Your task to perform on an android device: turn on improve location accuracy Image 0: 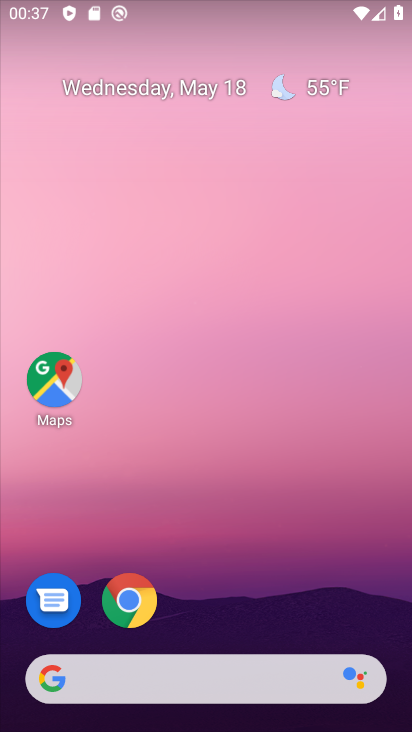
Step 0: drag from (143, 654) to (134, 232)
Your task to perform on an android device: turn on improve location accuracy Image 1: 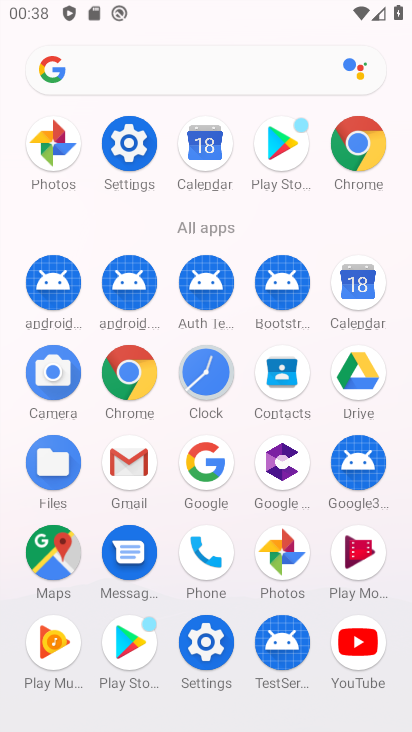
Step 1: click (197, 631)
Your task to perform on an android device: turn on improve location accuracy Image 2: 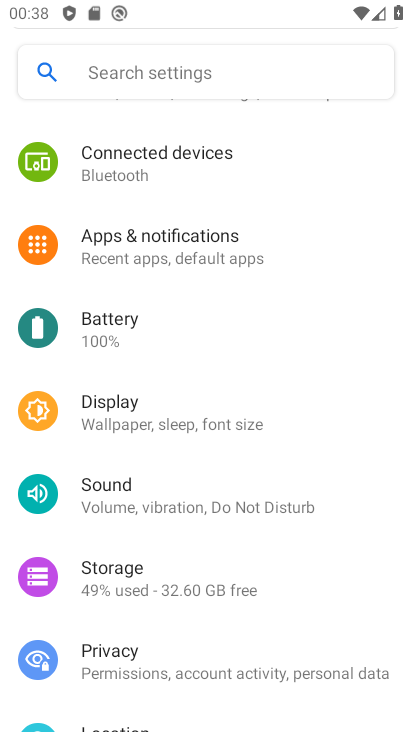
Step 2: drag from (142, 567) to (116, 112)
Your task to perform on an android device: turn on improve location accuracy Image 3: 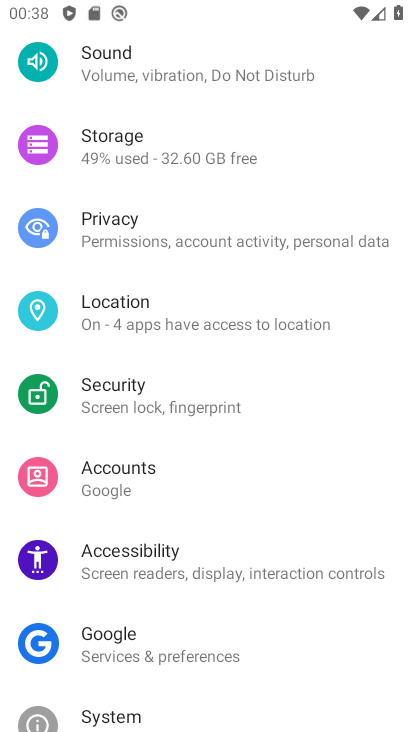
Step 3: click (105, 304)
Your task to perform on an android device: turn on improve location accuracy Image 4: 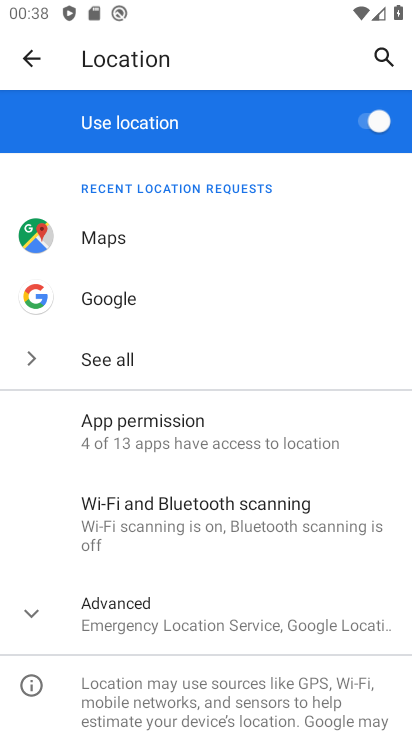
Step 4: click (135, 600)
Your task to perform on an android device: turn on improve location accuracy Image 5: 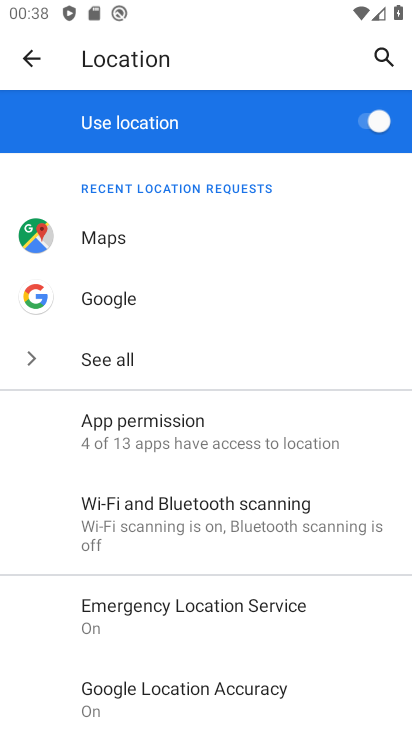
Step 5: click (162, 678)
Your task to perform on an android device: turn on improve location accuracy Image 6: 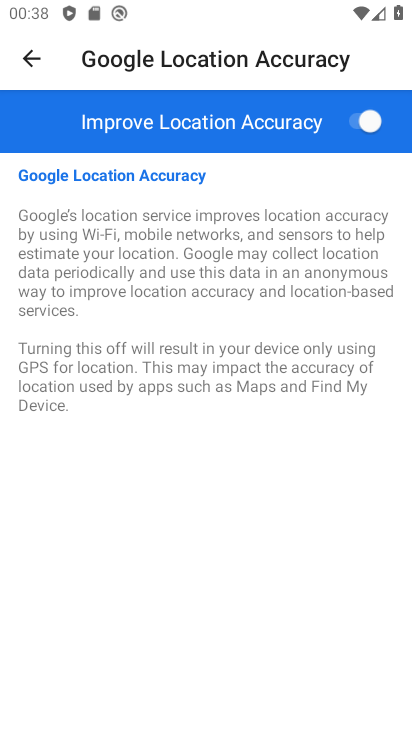
Step 6: task complete